Your task to perform on an android device: Open location settings Image 0: 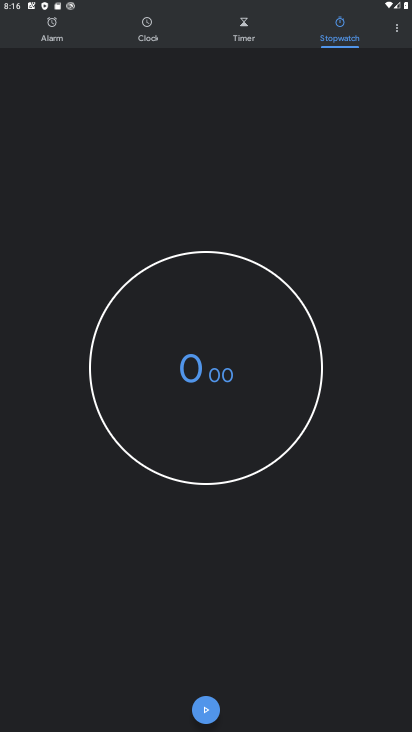
Step 0: press home button
Your task to perform on an android device: Open location settings Image 1: 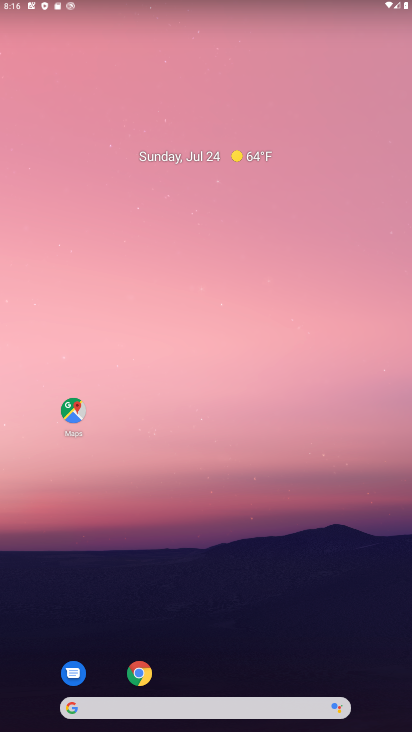
Step 1: drag from (330, 619) to (265, 188)
Your task to perform on an android device: Open location settings Image 2: 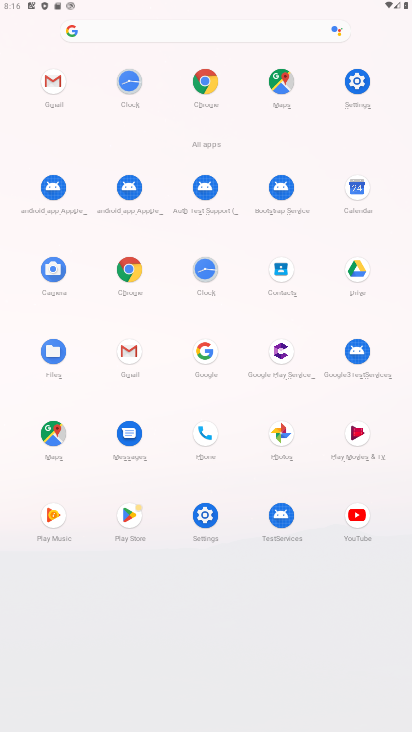
Step 2: click (204, 504)
Your task to perform on an android device: Open location settings Image 3: 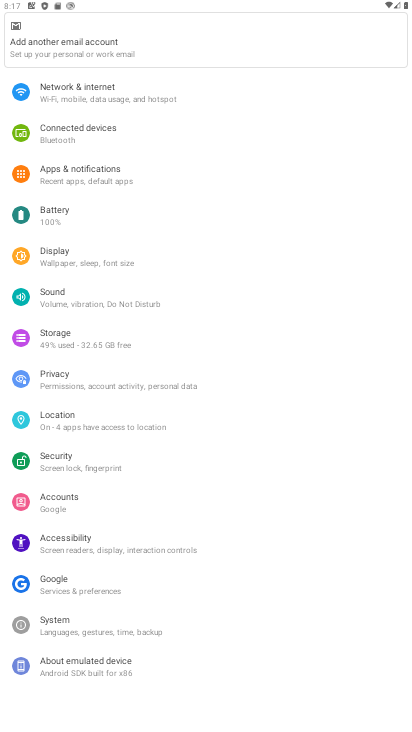
Step 3: click (132, 425)
Your task to perform on an android device: Open location settings Image 4: 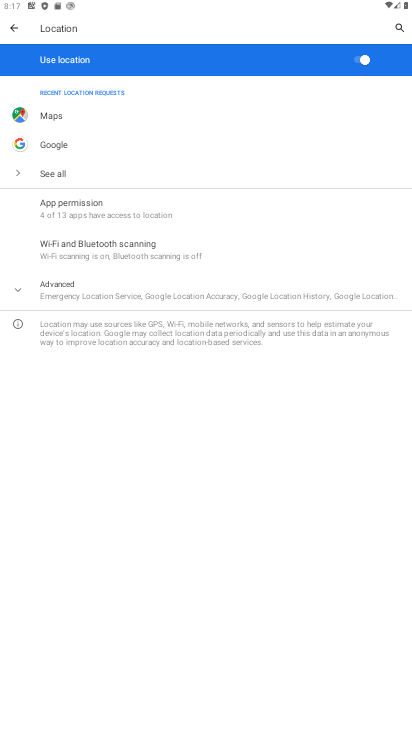
Step 4: click (98, 296)
Your task to perform on an android device: Open location settings Image 5: 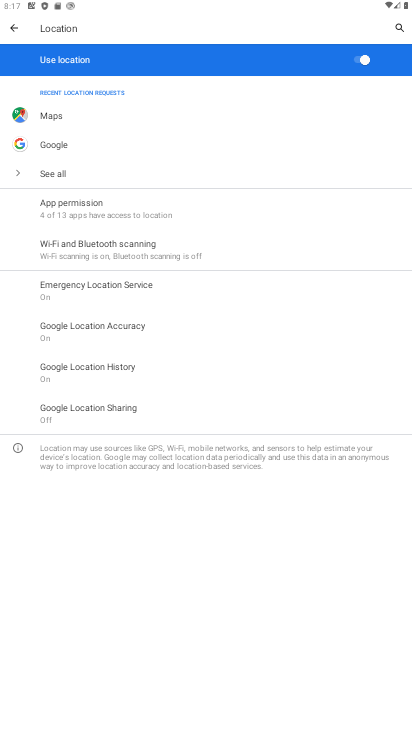
Step 5: task complete